Your task to perform on an android device: uninstall "Google Photos" Image 0: 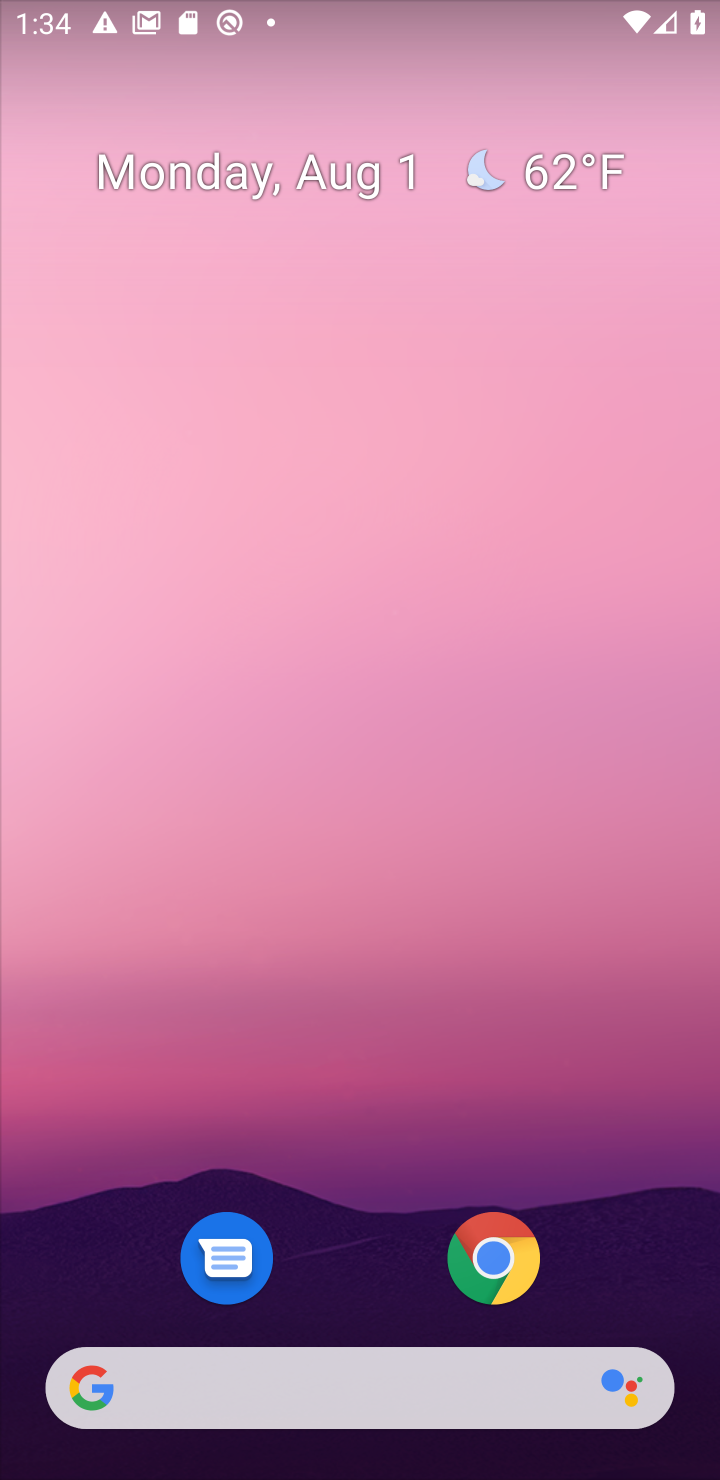
Step 0: drag from (112, 1295) to (319, 139)
Your task to perform on an android device: uninstall "Google Photos" Image 1: 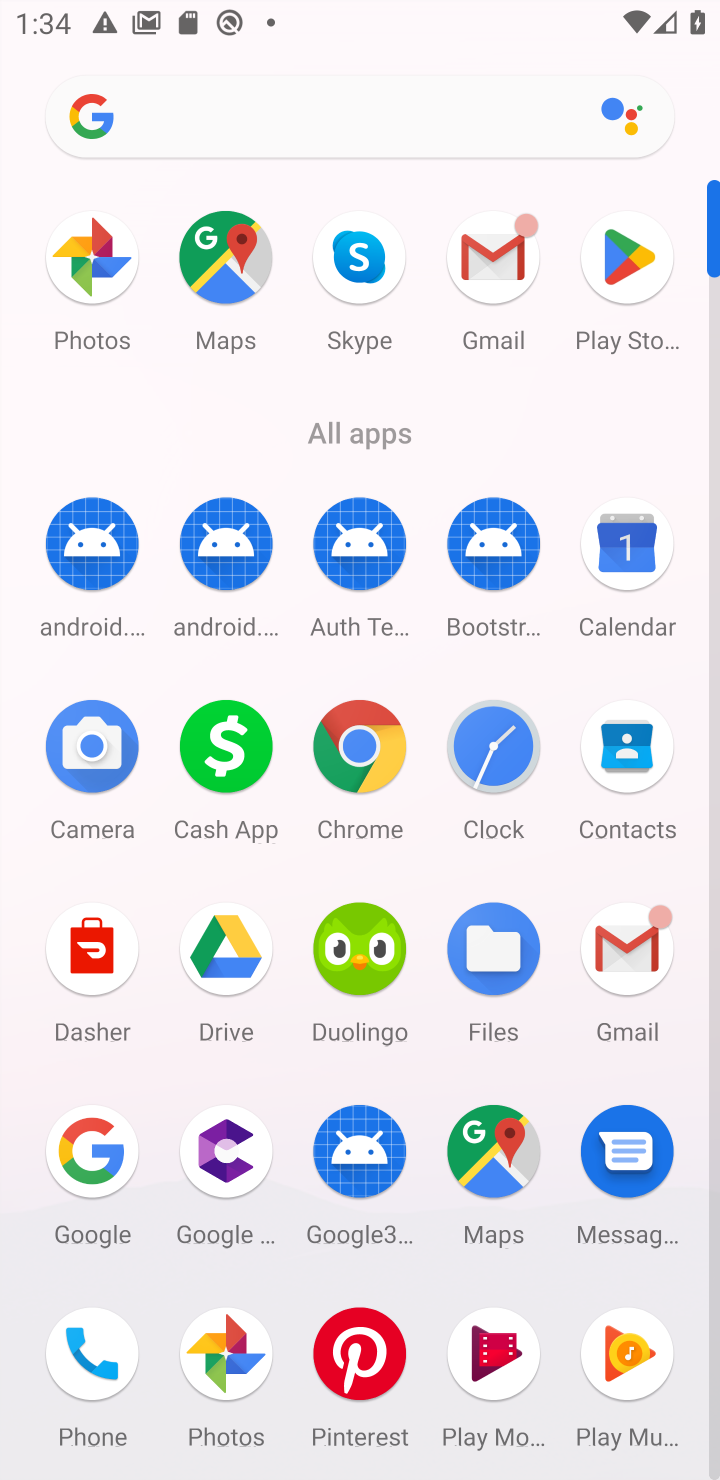
Step 1: click (199, 1359)
Your task to perform on an android device: uninstall "Google Photos" Image 2: 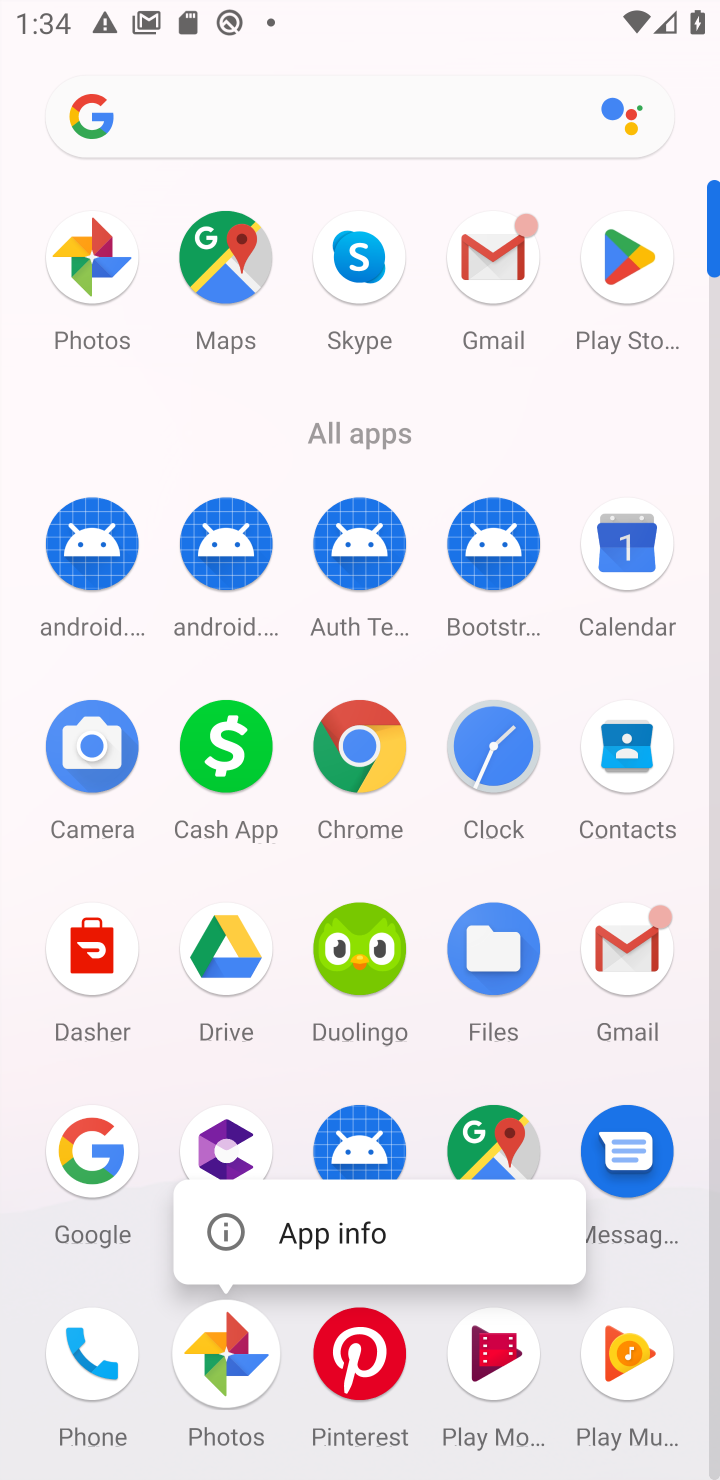
Step 2: click (237, 1229)
Your task to perform on an android device: uninstall "Google Photos" Image 3: 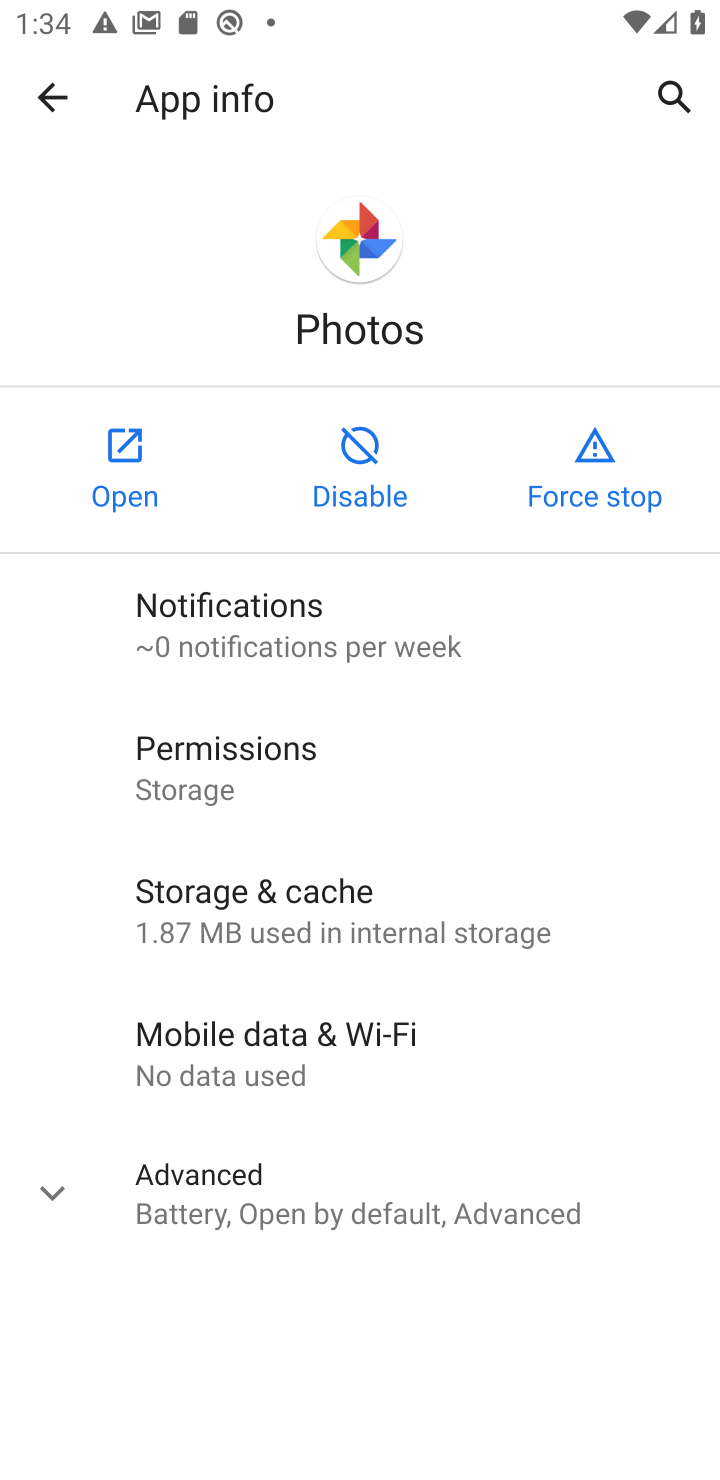
Step 3: task complete